Your task to perform on an android device: turn off javascript in the chrome app Image 0: 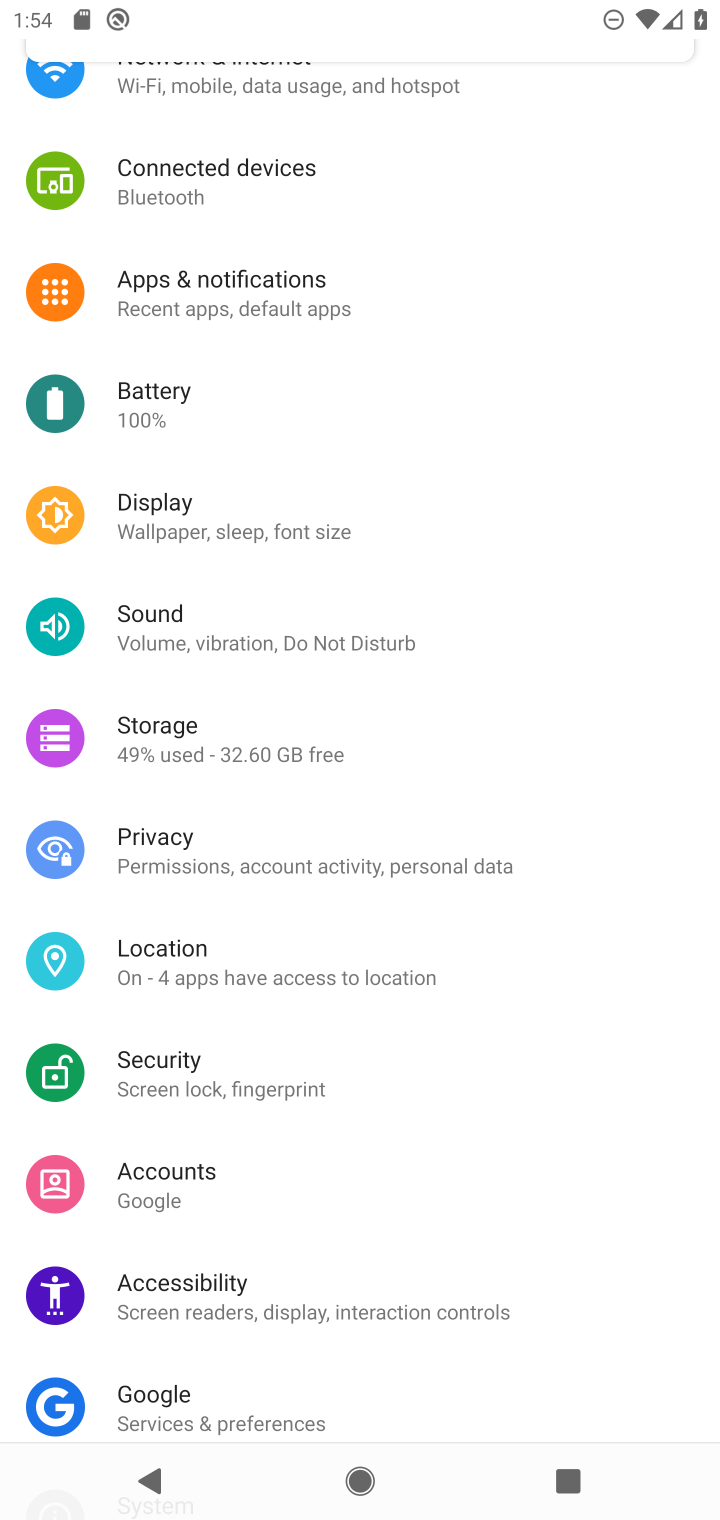
Step 0: press home button
Your task to perform on an android device: turn off javascript in the chrome app Image 1: 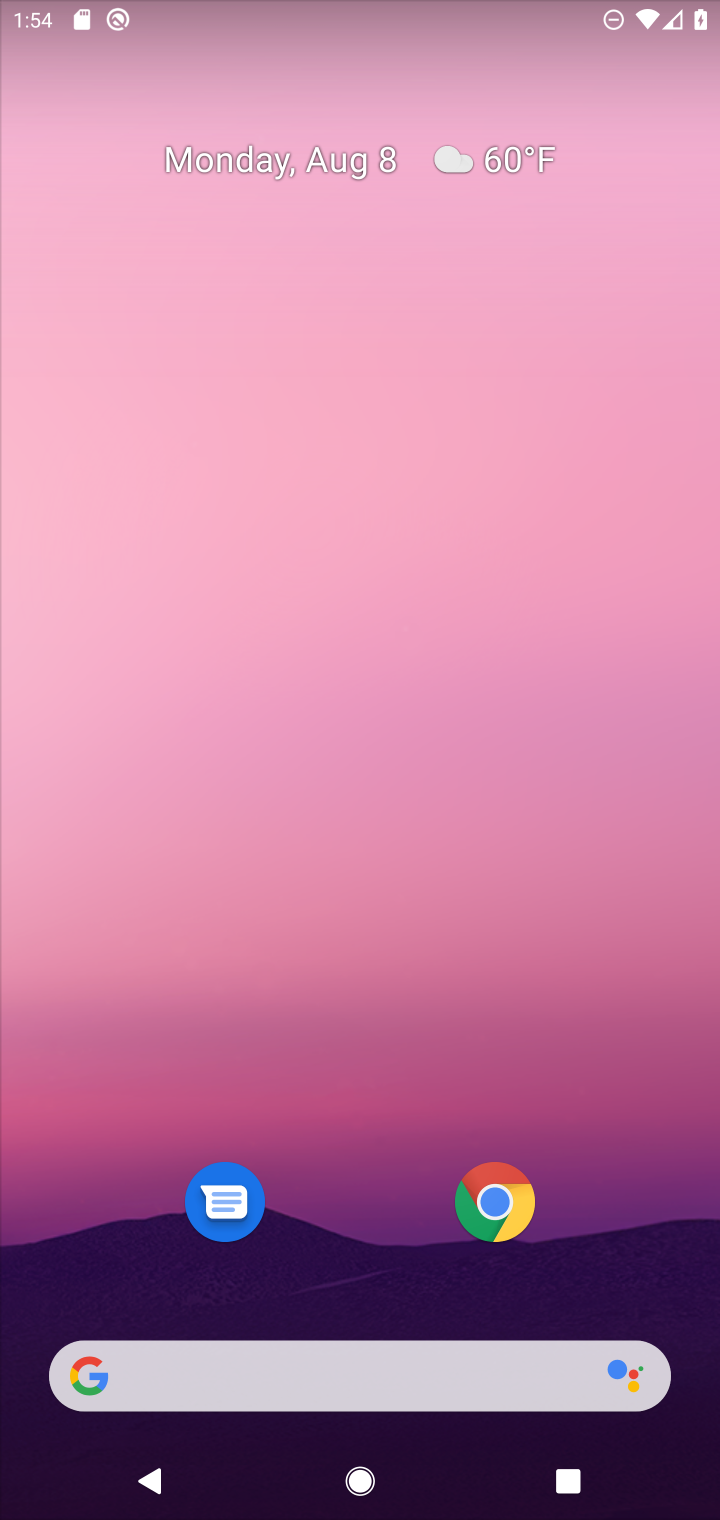
Step 1: drag from (625, 1208) to (642, 188)
Your task to perform on an android device: turn off javascript in the chrome app Image 2: 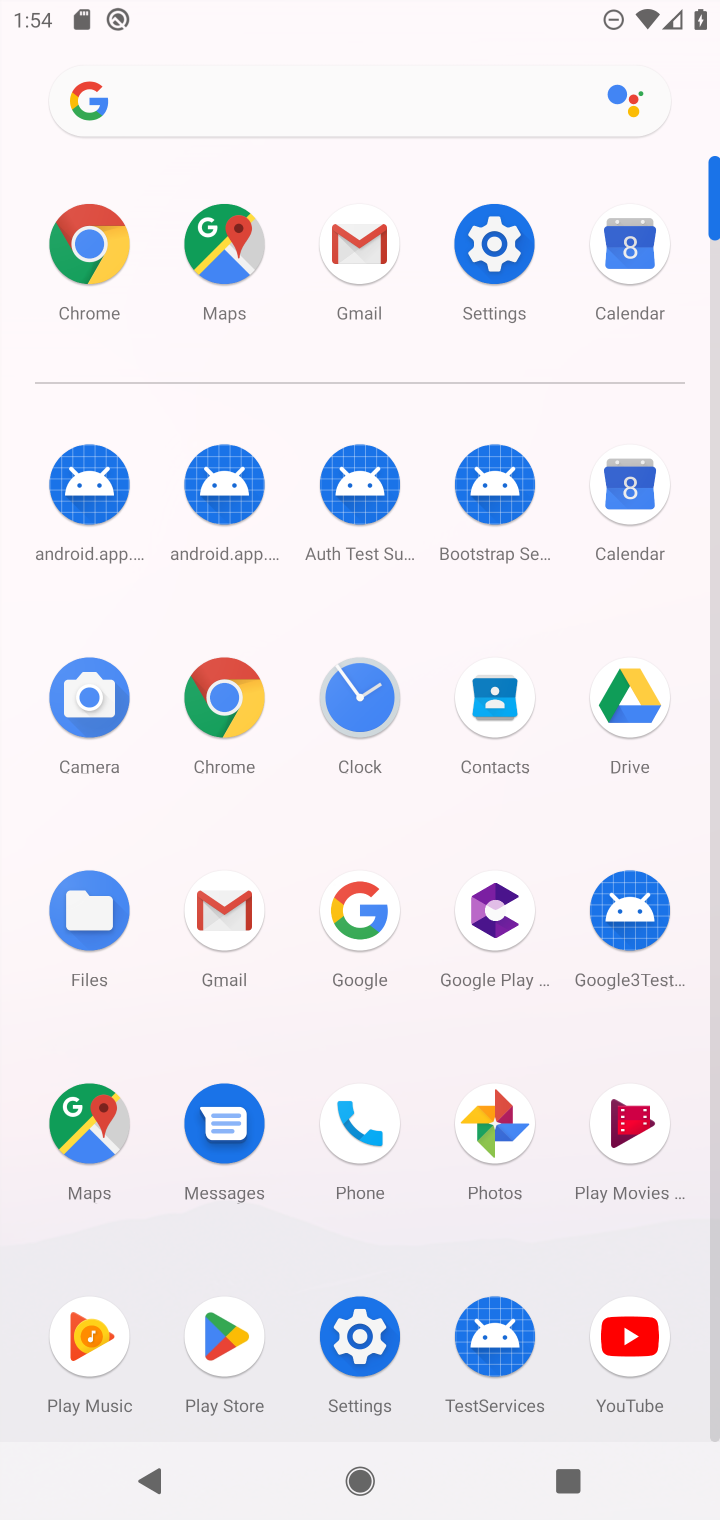
Step 2: click (221, 704)
Your task to perform on an android device: turn off javascript in the chrome app Image 3: 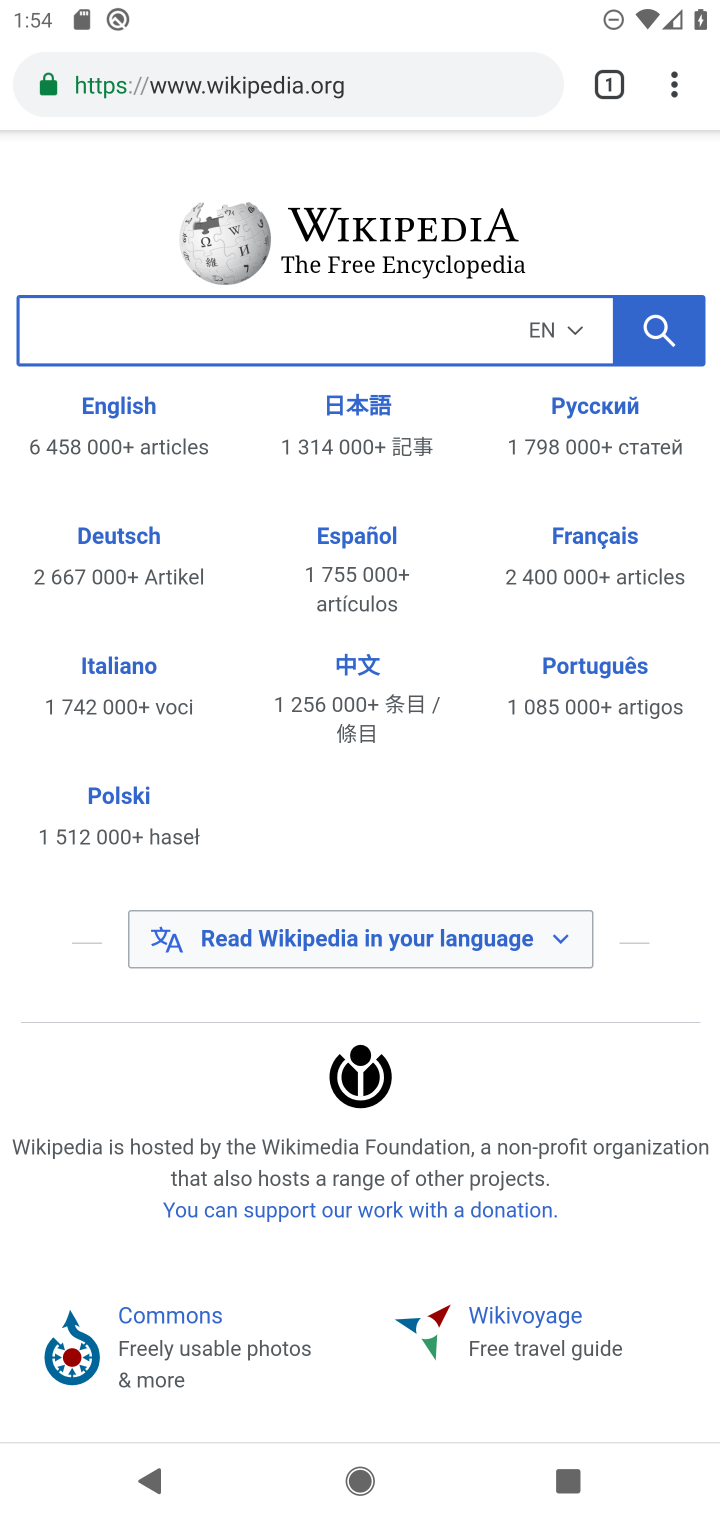
Step 3: click (676, 90)
Your task to perform on an android device: turn off javascript in the chrome app Image 4: 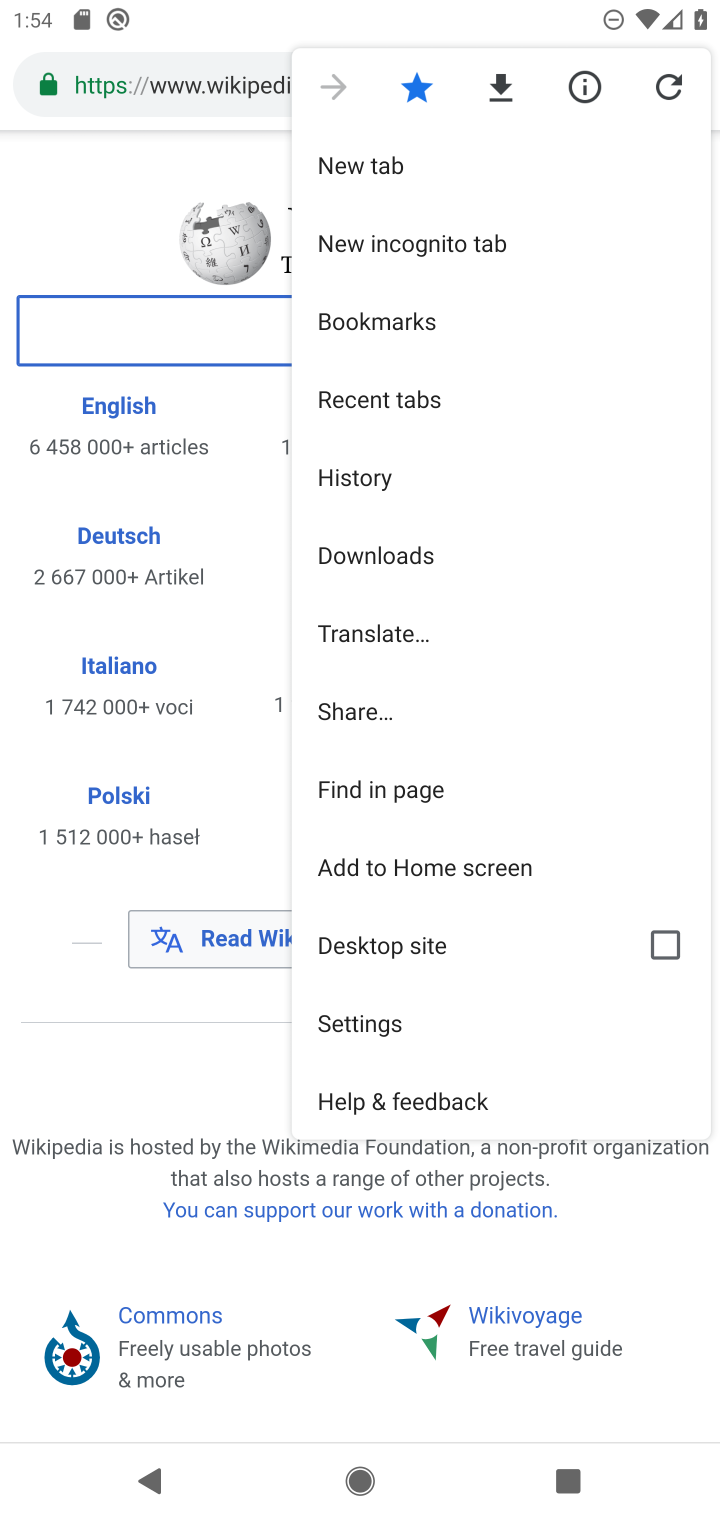
Step 4: click (451, 1002)
Your task to perform on an android device: turn off javascript in the chrome app Image 5: 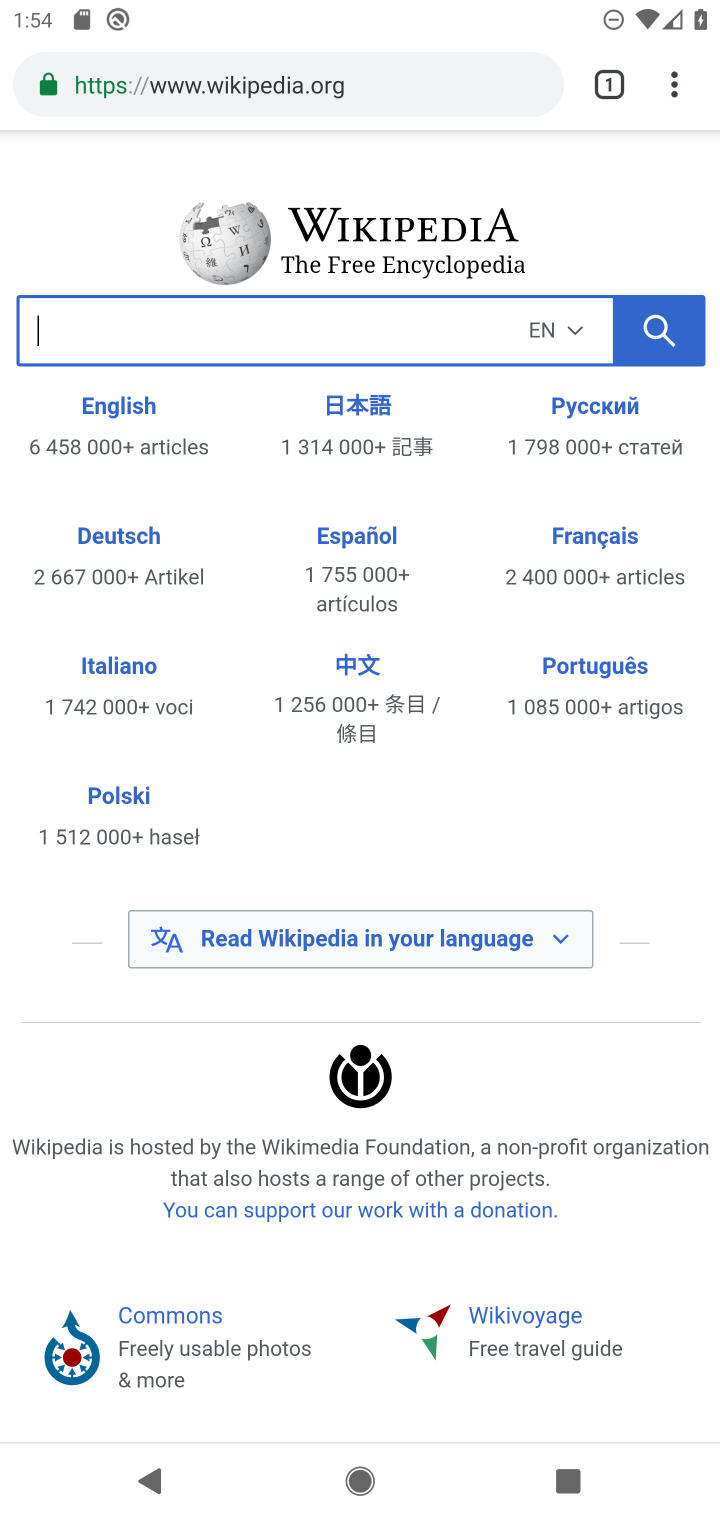
Step 5: click (370, 1024)
Your task to perform on an android device: turn off javascript in the chrome app Image 6: 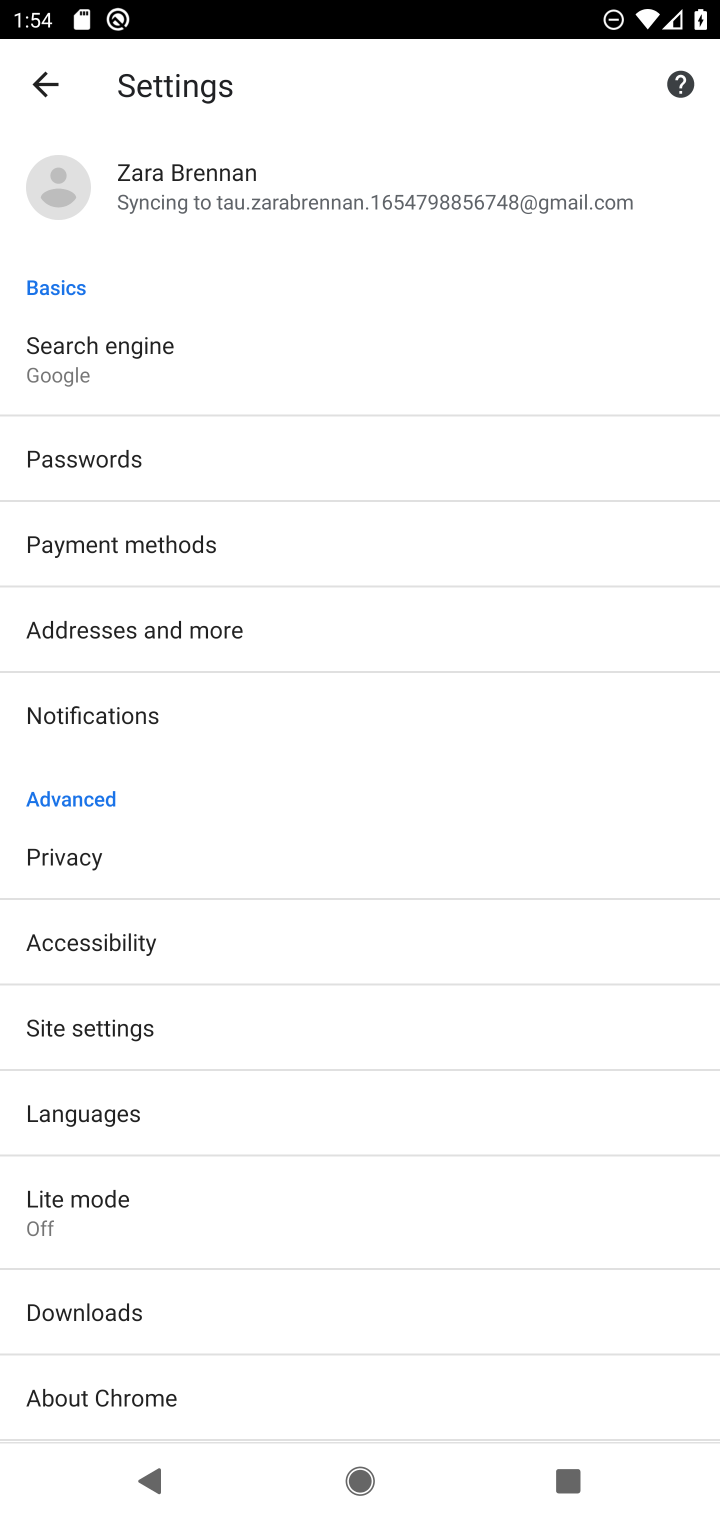
Step 6: drag from (538, 1037) to (521, 707)
Your task to perform on an android device: turn off javascript in the chrome app Image 7: 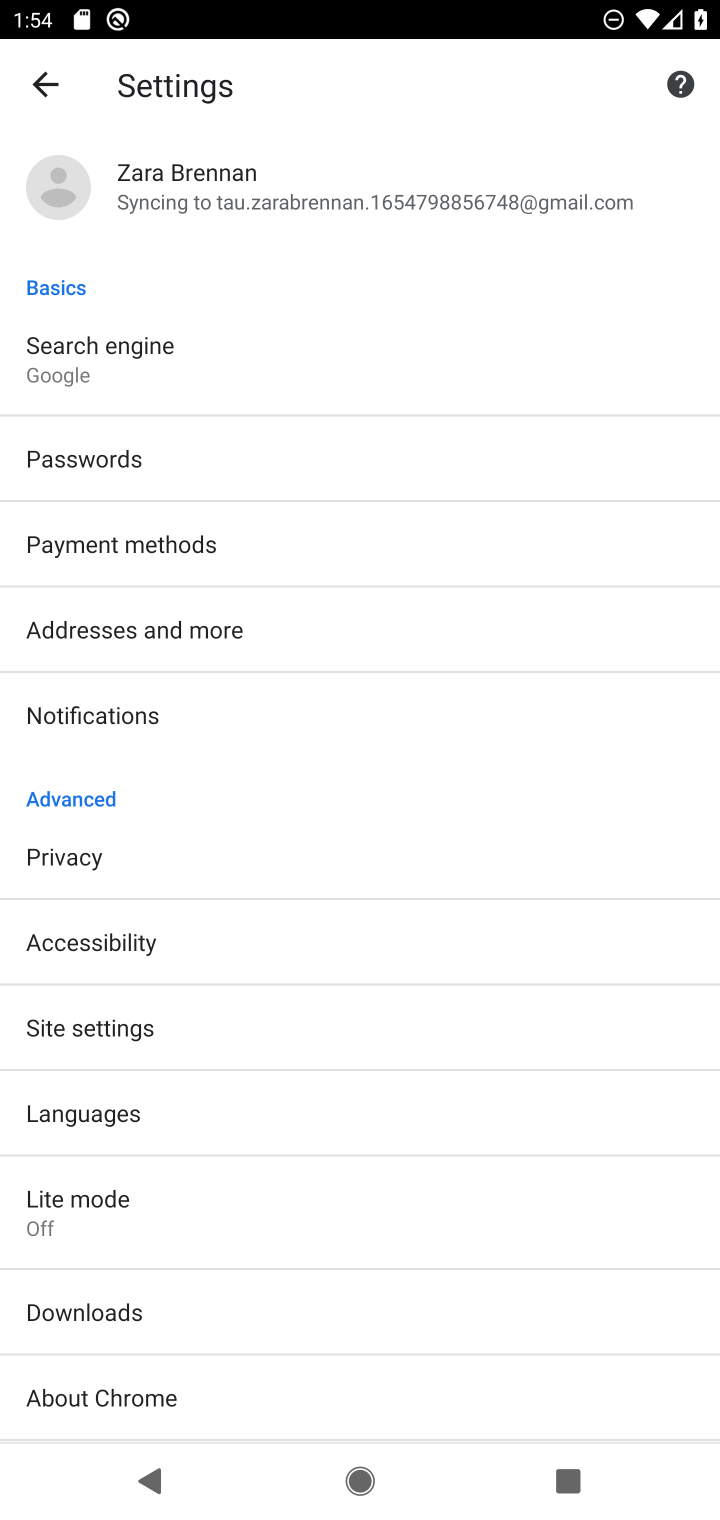
Step 7: drag from (508, 1038) to (530, 751)
Your task to perform on an android device: turn off javascript in the chrome app Image 8: 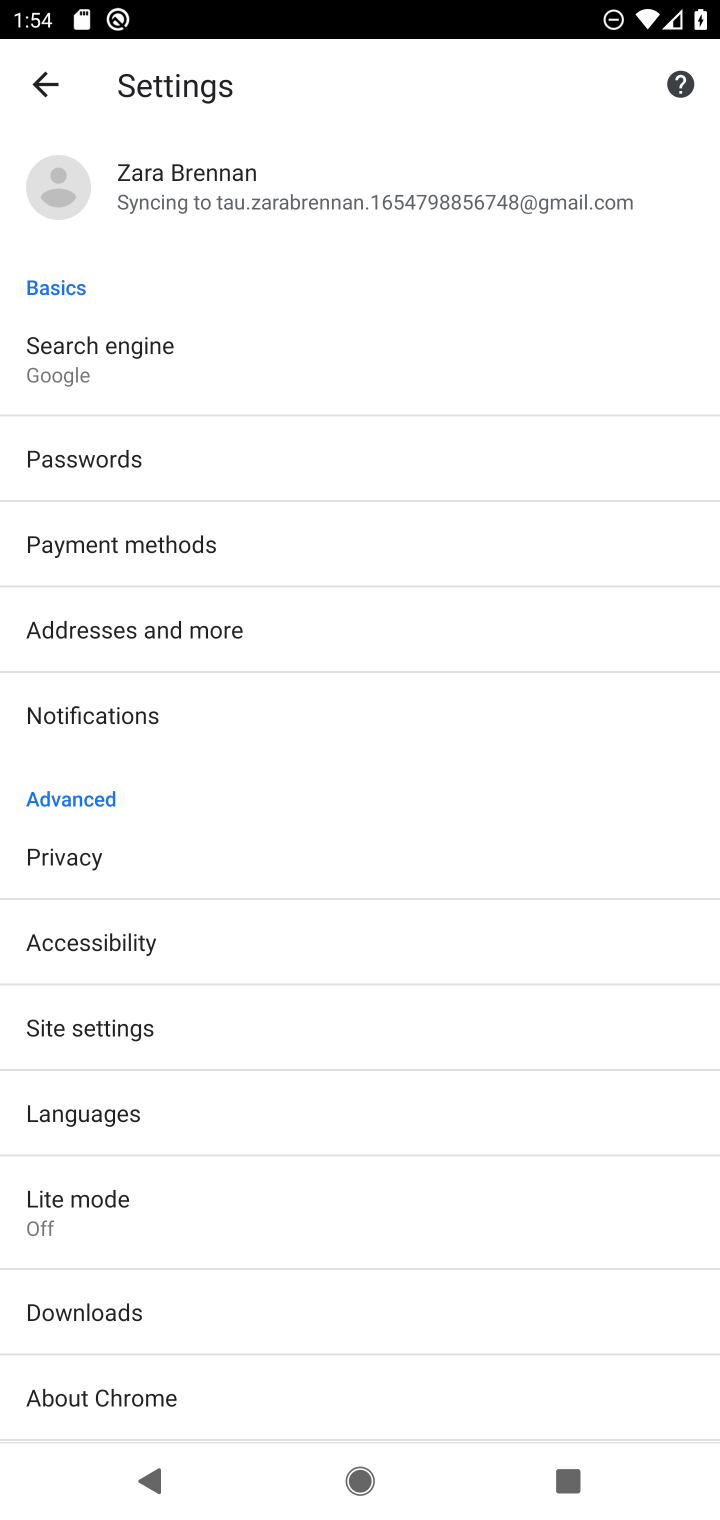
Step 8: drag from (502, 976) to (510, 832)
Your task to perform on an android device: turn off javascript in the chrome app Image 9: 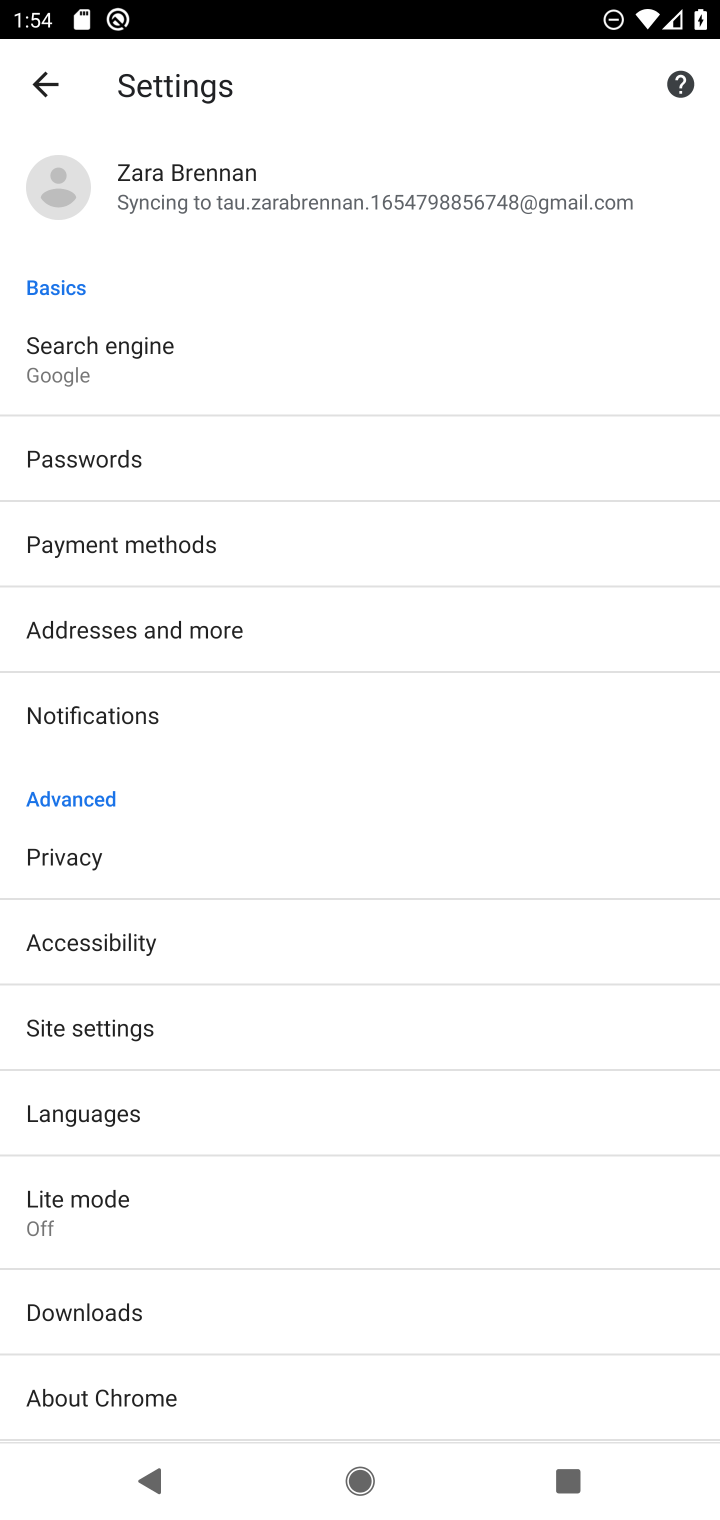
Step 9: drag from (486, 1073) to (484, 943)
Your task to perform on an android device: turn off javascript in the chrome app Image 10: 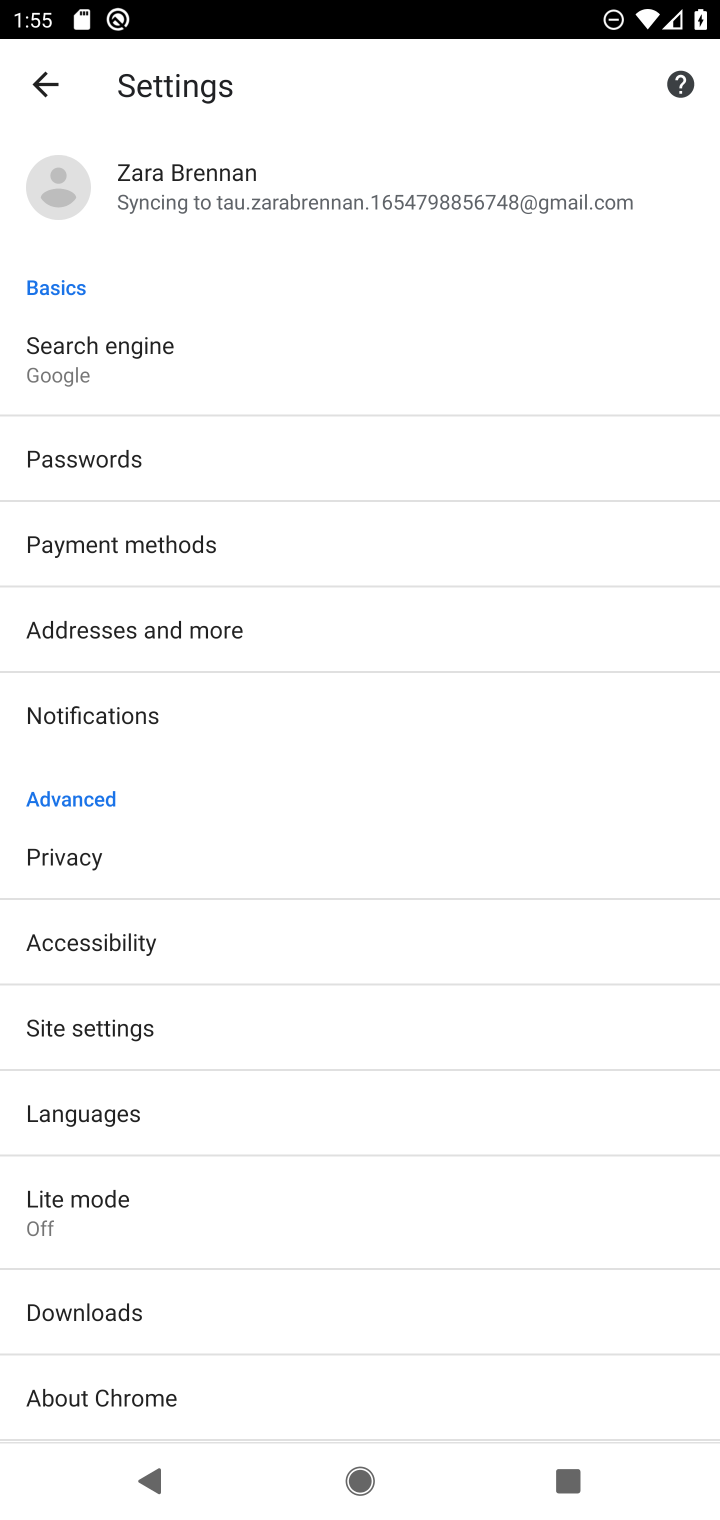
Step 10: drag from (484, 718) to (522, 1046)
Your task to perform on an android device: turn off javascript in the chrome app Image 11: 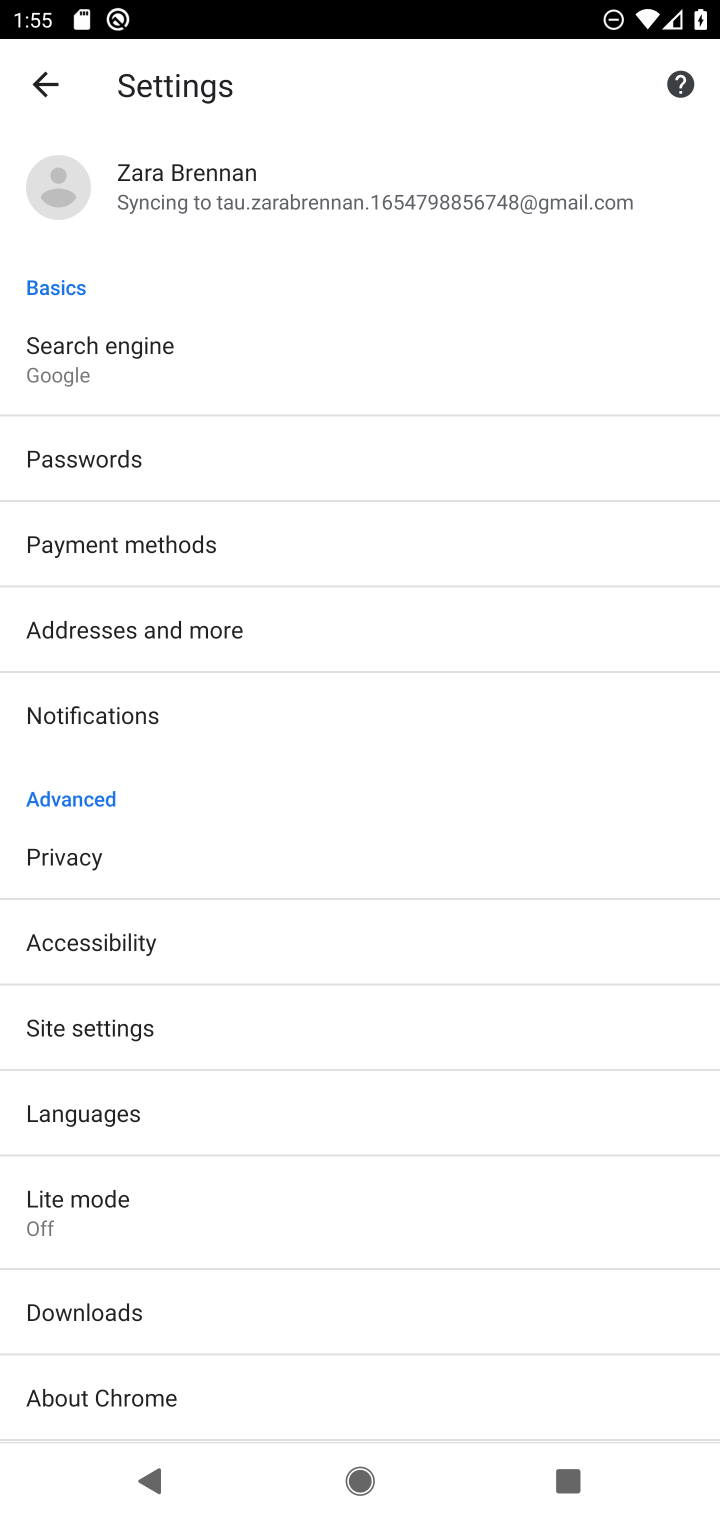
Step 11: drag from (462, 750) to (455, 1084)
Your task to perform on an android device: turn off javascript in the chrome app Image 12: 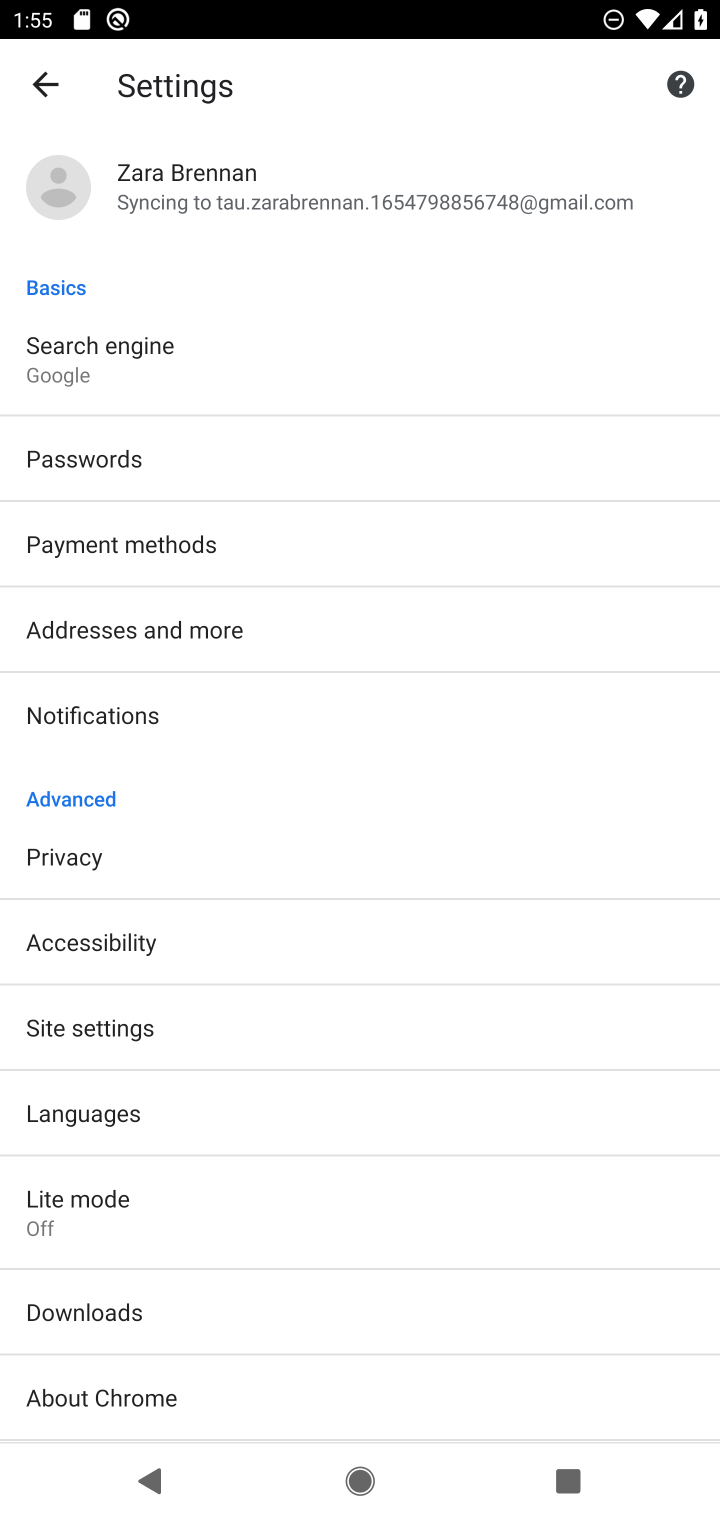
Step 12: drag from (425, 1141) to (434, 939)
Your task to perform on an android device: turn off javascript in the chrome app Image 13: 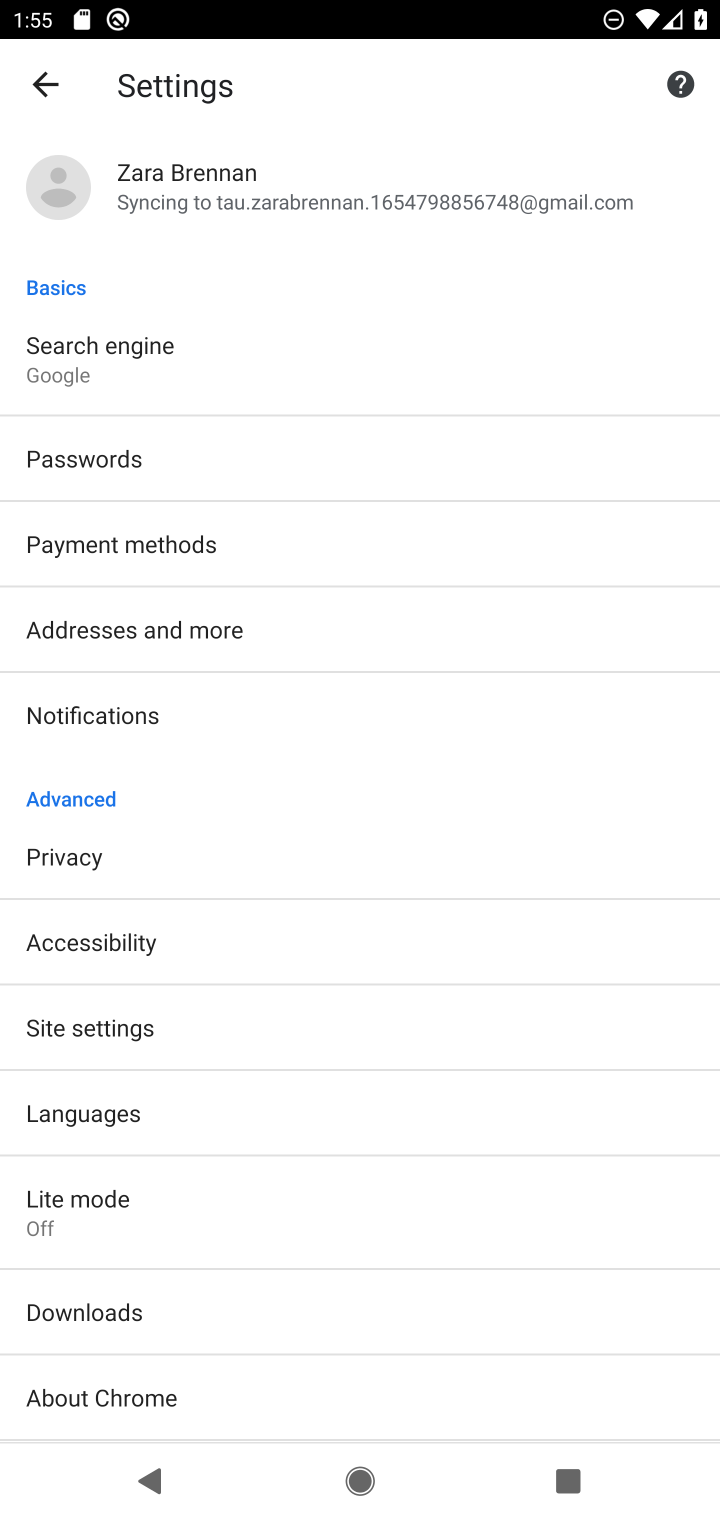
Step 13: click (248, 1036)
Your task to perform on an android device: turn off javascript in the chrome app Image 14: 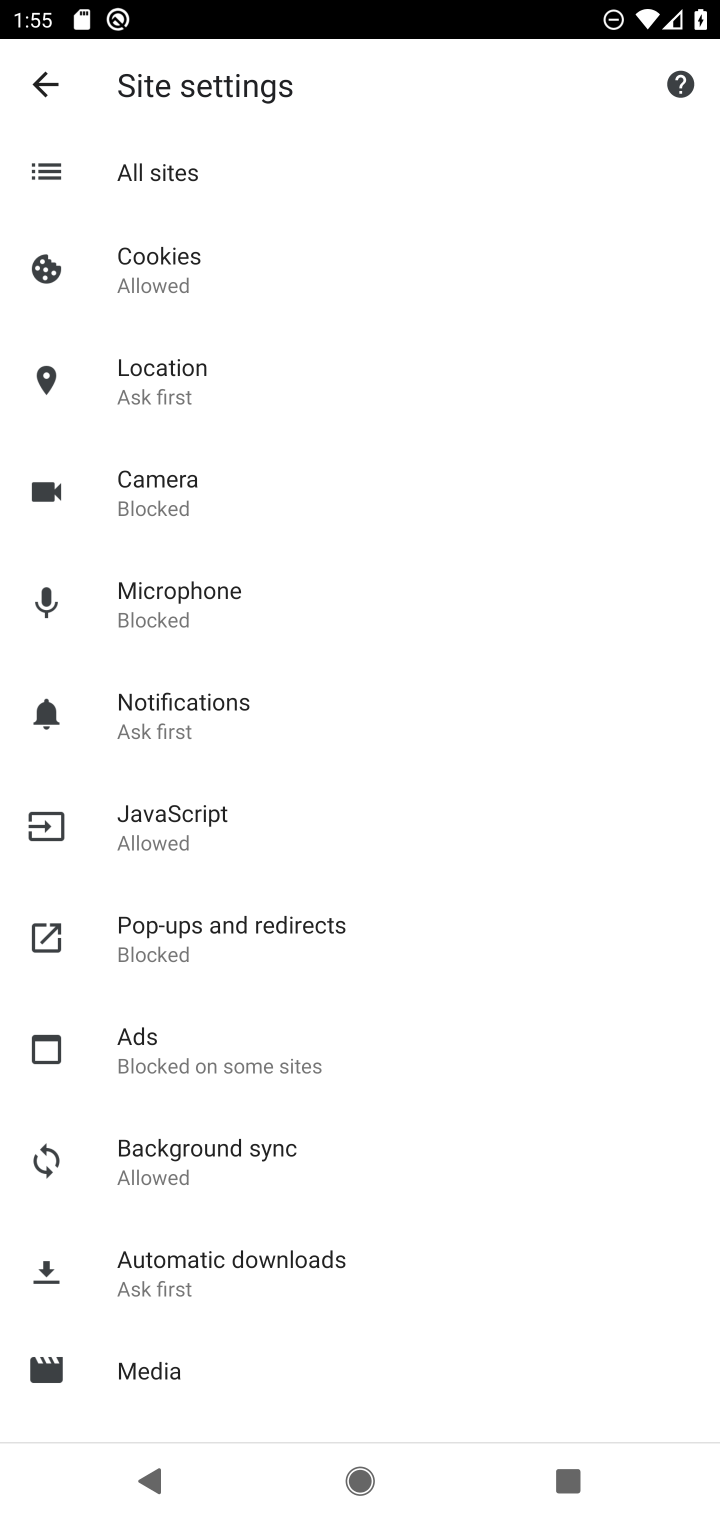
Step 14: drag from (436, 1149) to (461, 818)
Your task to perform on an android device: turn off javascript in the chrome app Image 15: 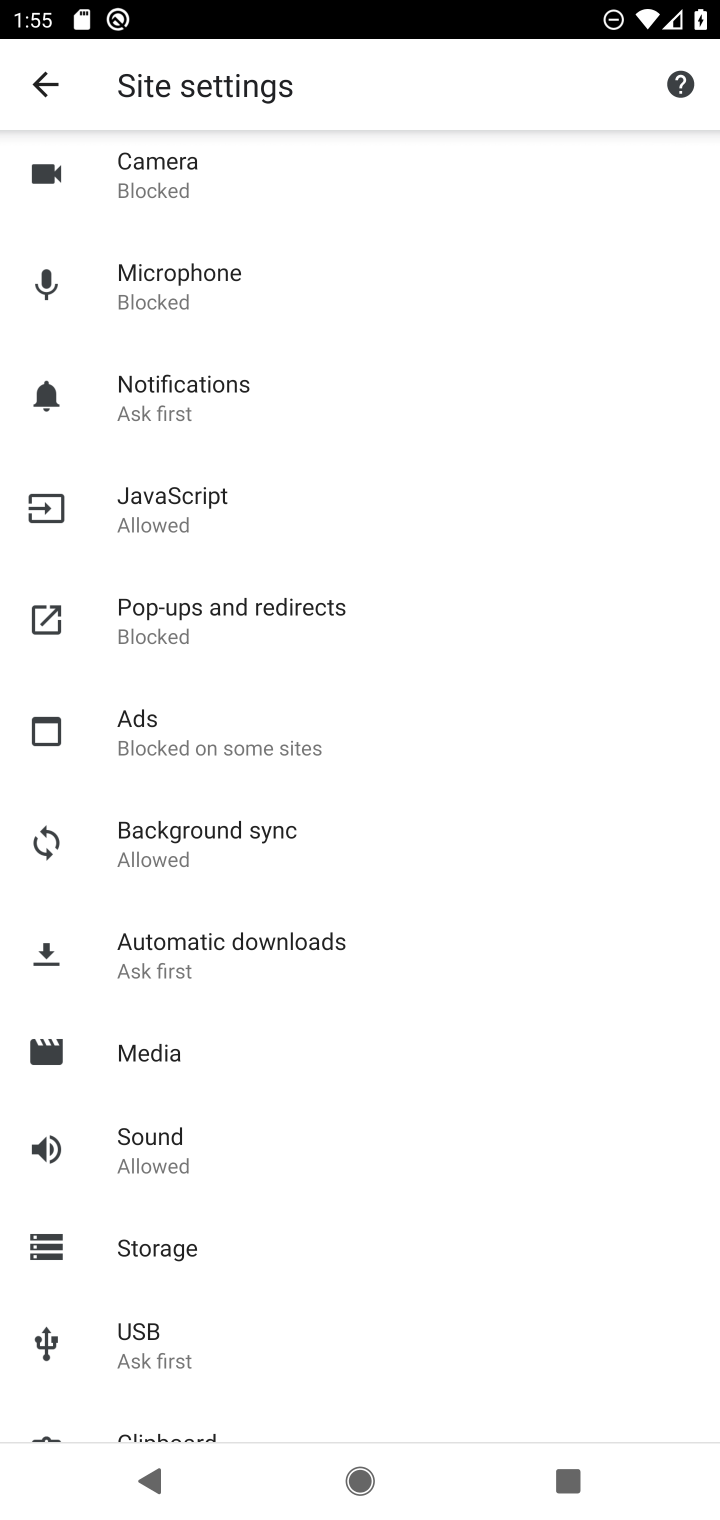
Step 15: click (252, 511)
Your task to perform on an android device: turn off javascript in the chrome app Image 16: 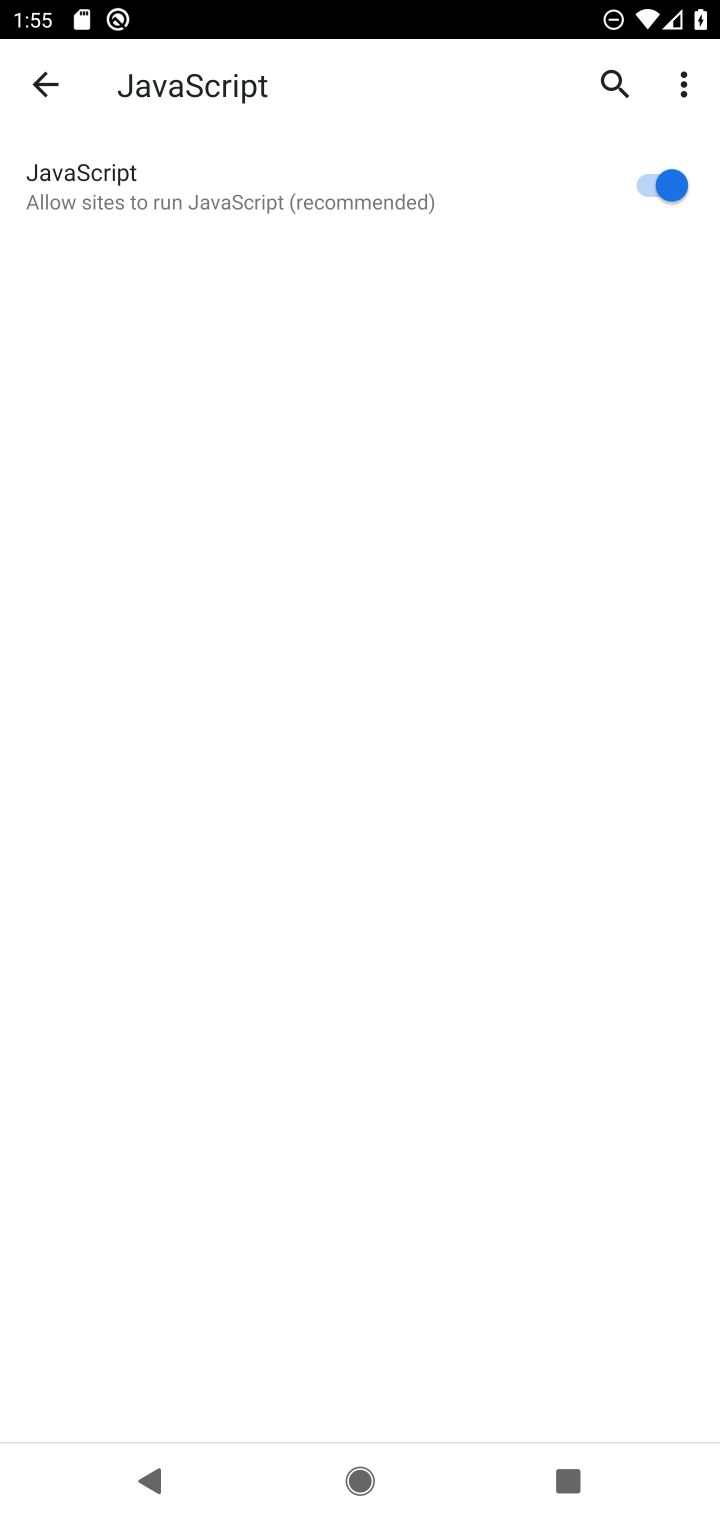
Step 16: click (650, 188)
Your task to perform on an android device: turn off javascript in the chrome app Image 17: 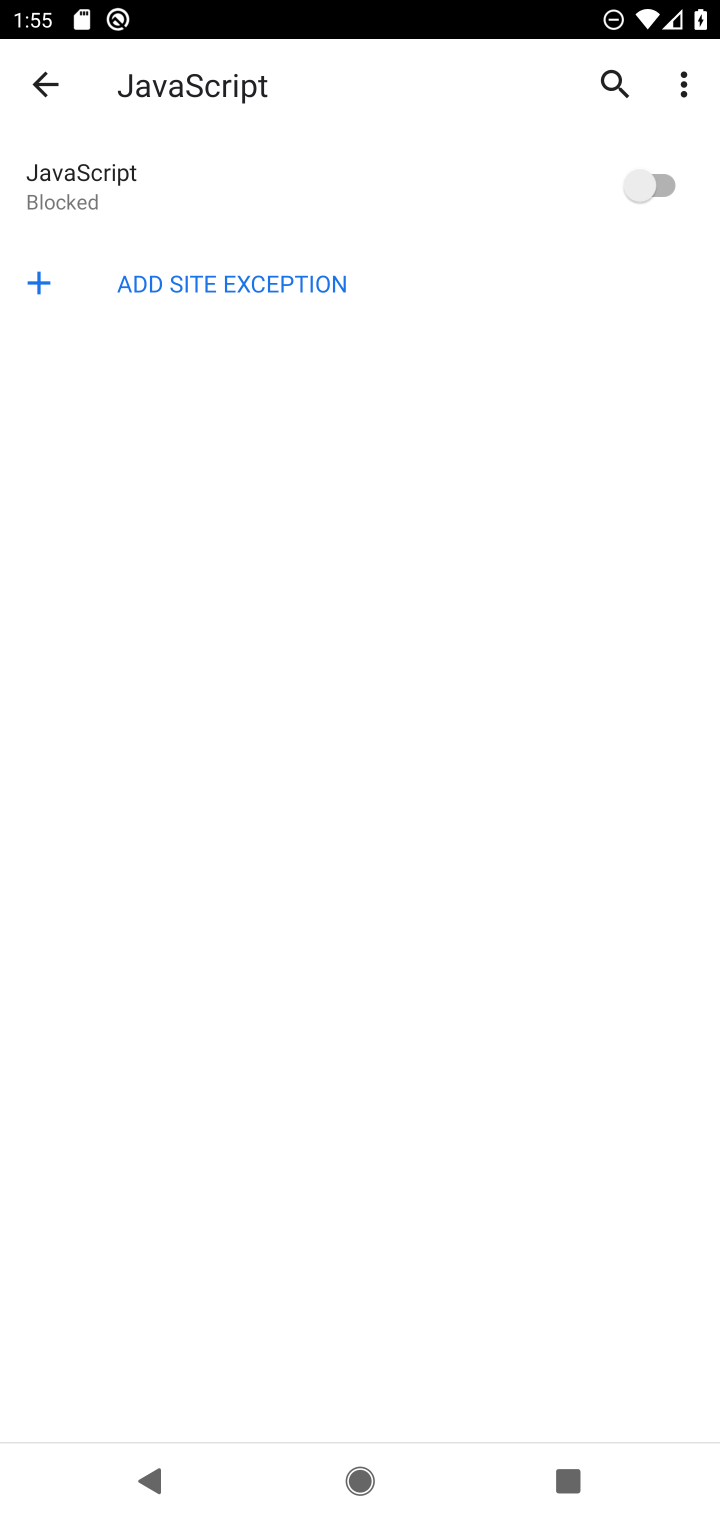
Step 17: task complete